Your task to perform on an android device: Go to Wikipedia Image 0: 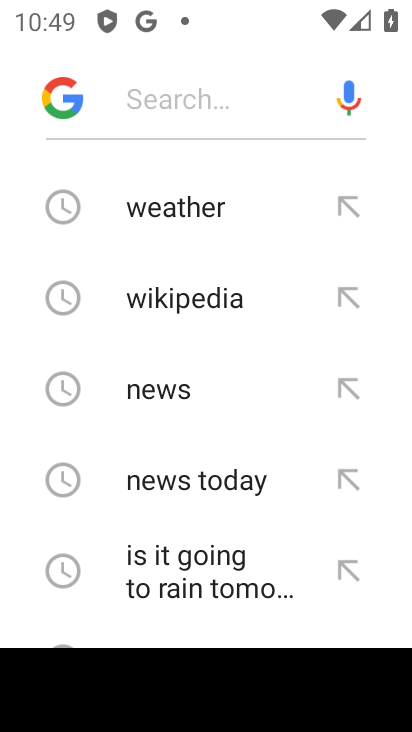
Step 0: press home button
Your task to perform on an android device: Go to Wikipedia Image 1: 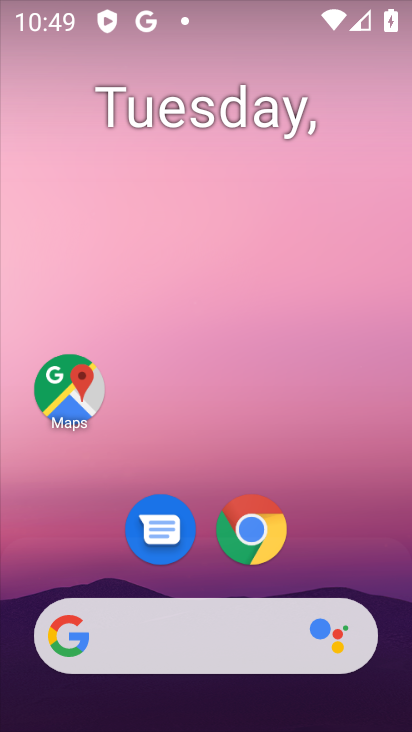
Step 1: click (255, 544)
Your task to perform on an android device: Go to Wikipedia Image 2: 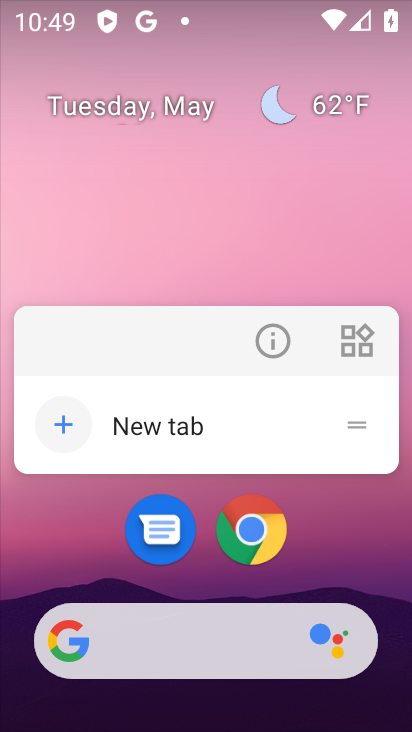
Step 2: click (230, 532)
Your task to perform on an android device: Go to Wikipedia Image 3: 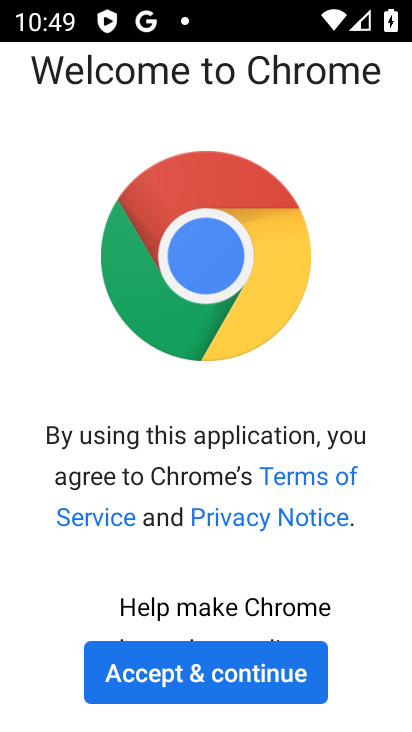
Step 3: click (226, 693)
Your task to perform on an android device: Go to Wikipedia Image 4: 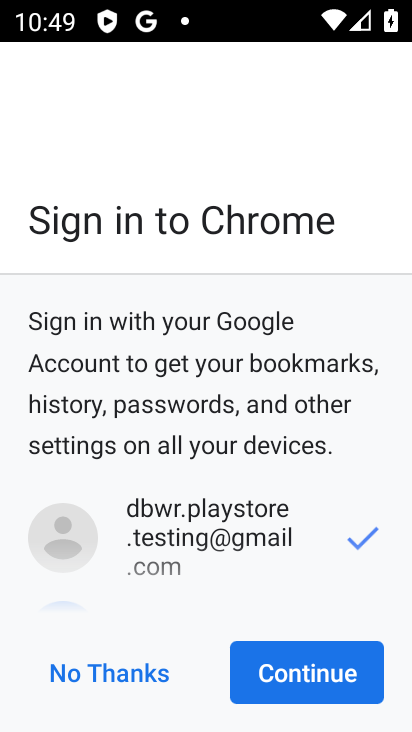
Step 4: click (289, 662)
Your task to perform on an android device: Go to Wikipedia Image 5: 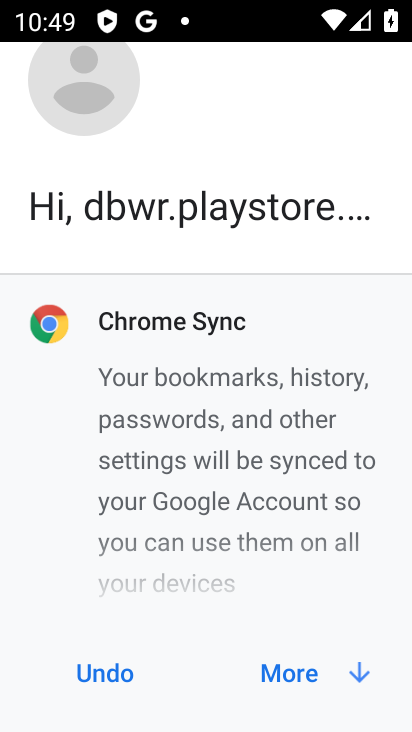
Step 5: click (274, 674)
Your task to perform on an android device: Go to Wikipedia Image 6: 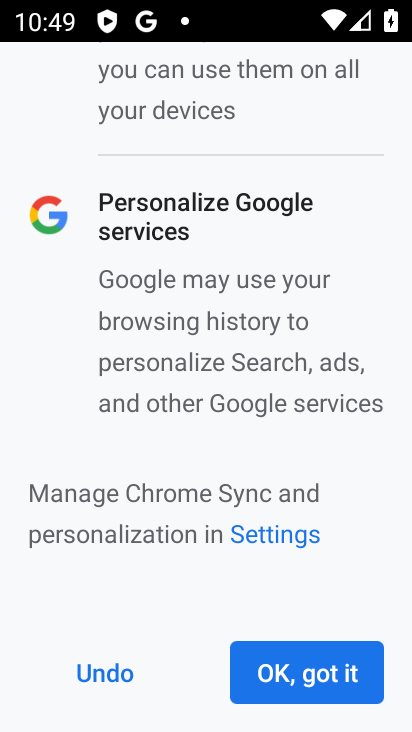
Step 6: click (272, 676)
Your task to perform on an android device: Go to Wikipedia Image 7: 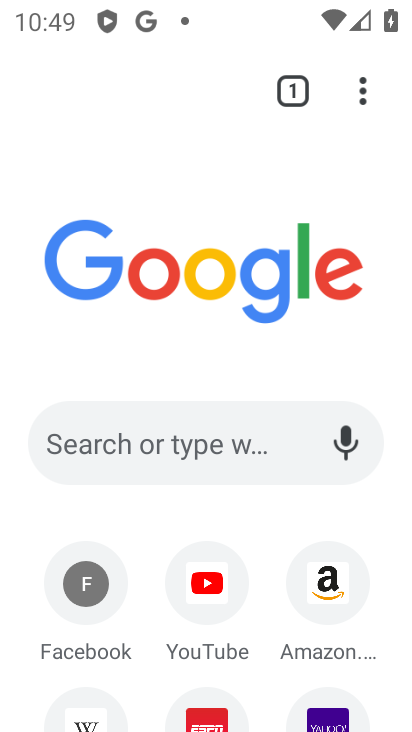
Step 7: click (85, 707)
Your task to perform on an android device: Go to Wikipedia Image 8: 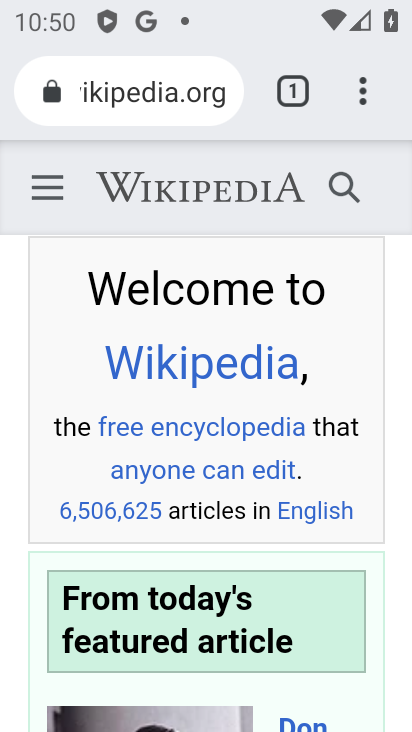
Step 8: task complete